Your task to perform on an android device: Open Google Chrome Image 0: 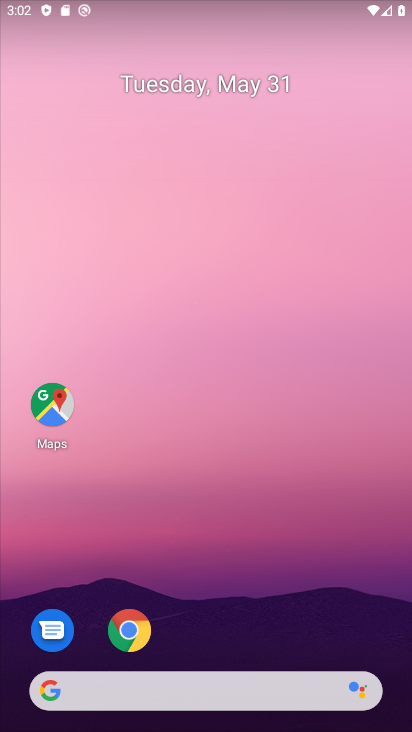
Step 0: click (141, 646)
Your task to perform on an android device: Open Google Chrome Image 1: 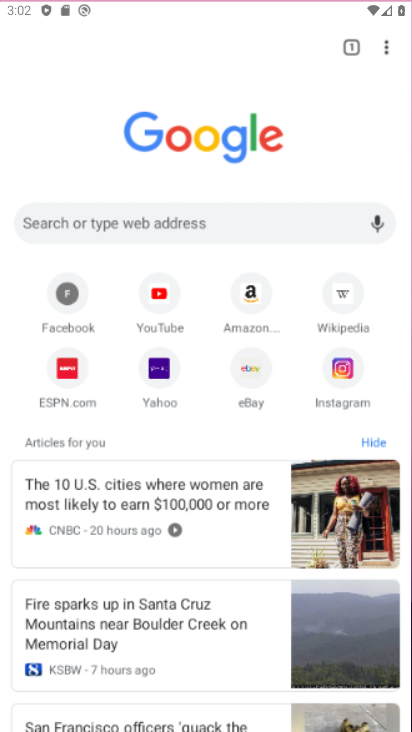
Step 1: click (132, 627)
Your task to perform on an android device: Open Google Chrome Image 2: 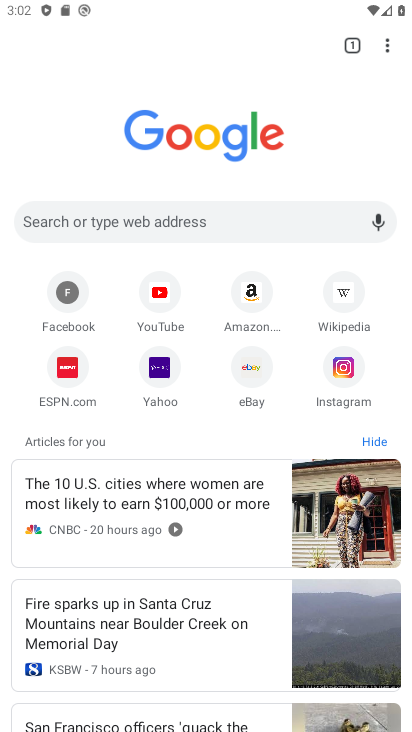
Step 2: task complete